Your task to perform on an android device: Go to privacy settings Image 0: 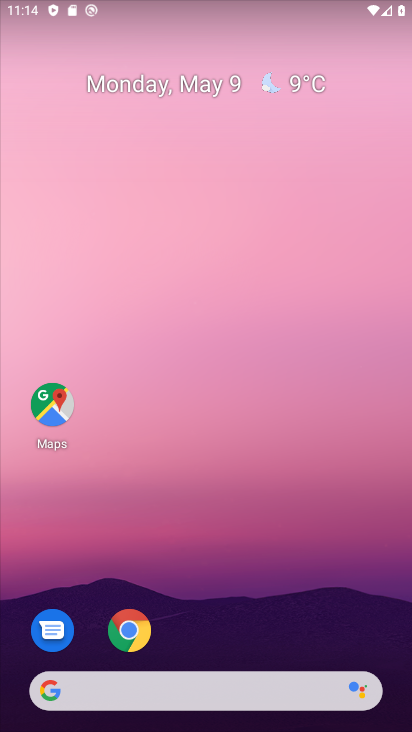
Step 0: drag from (238, 597) to (142, 147)
Your task to perform on an android device: Go to privacy settings Image 1: 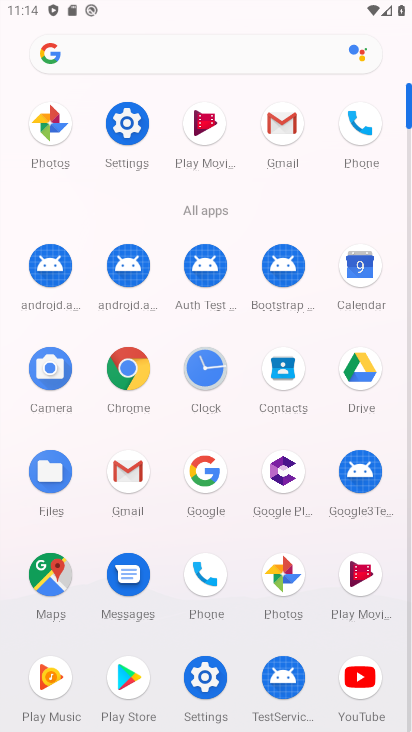
Step 1: click (124, 115)
Your task to perform on an android device: Go to privacy settings Image 2: 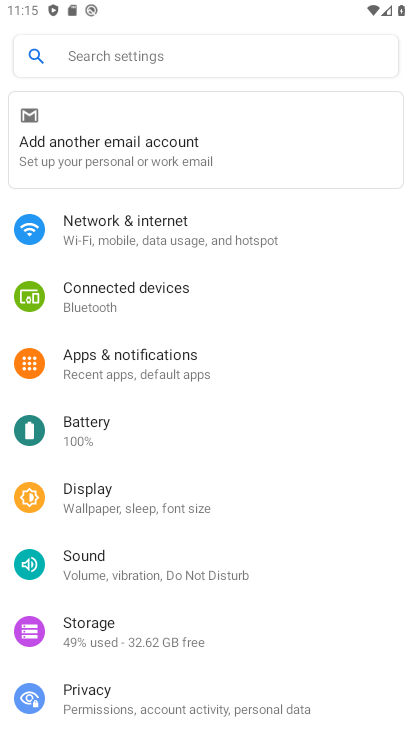
Step 2: click (97, 687)
Your task to perform on an android device: Go to privacy settings Image 3: 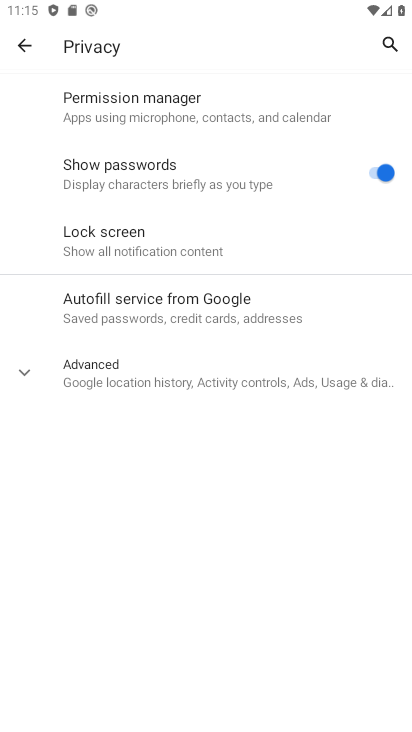
Step 3: task complete